Your task to perform on an android device: open app "Facebook Messenger" (install if not already installed) Image 0: 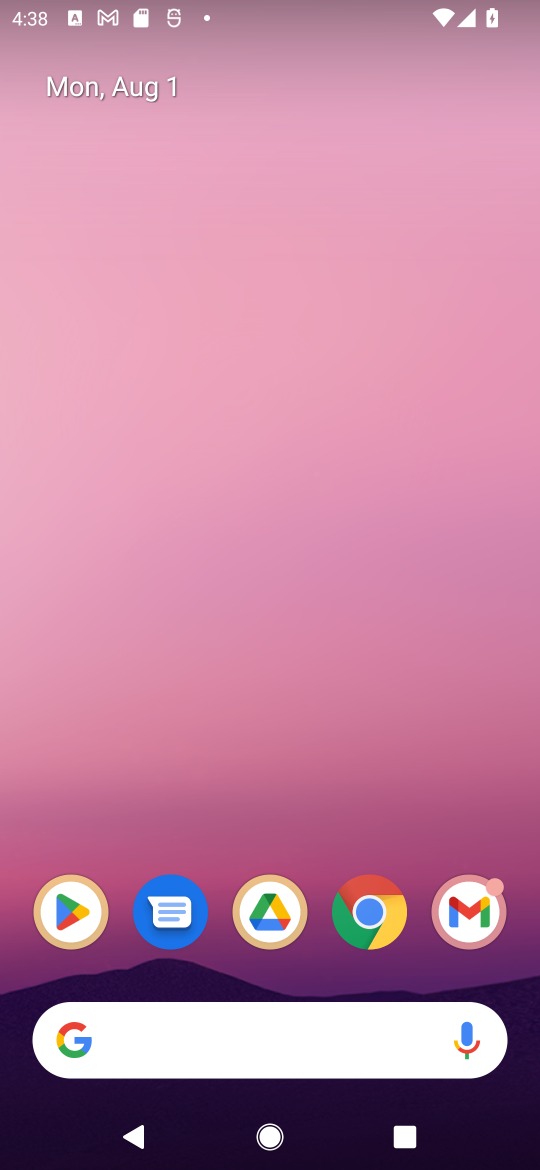
Step 0: click (48, 930)
Your task to perform on an android device: open app "Facebook Messenger" (install if not already installed) Image 1: 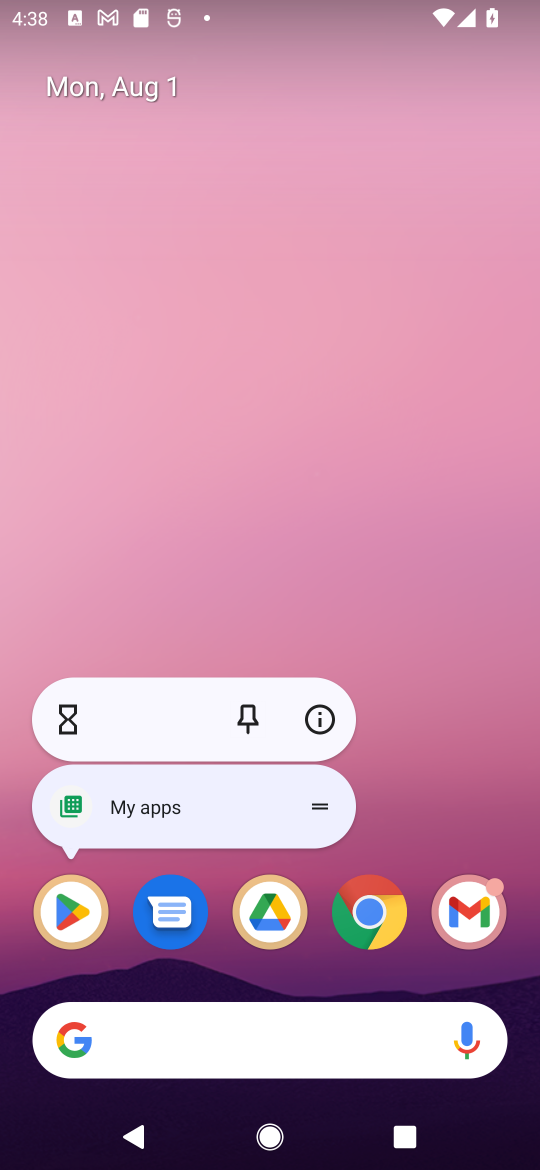
Step 1: click (70, 911)
Your task to perform on an android device: open app "Facebook Messenger" (install if not already installed) Image 2: 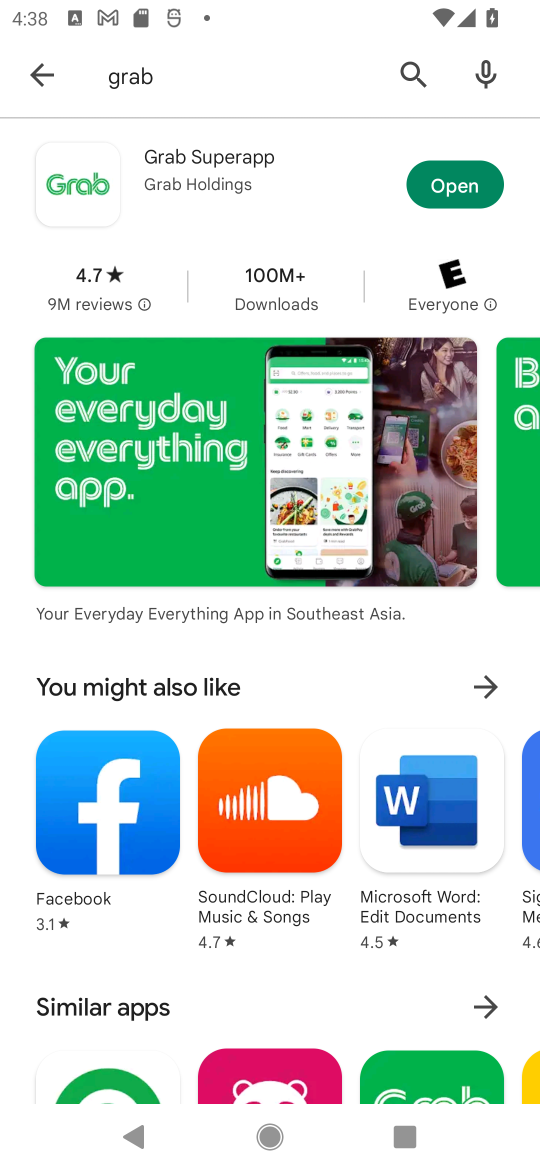
Step 2: click (407, 61)
Your task to perform on an android device: open app "Facebook Messenger" (install if not already installed) Image 3: 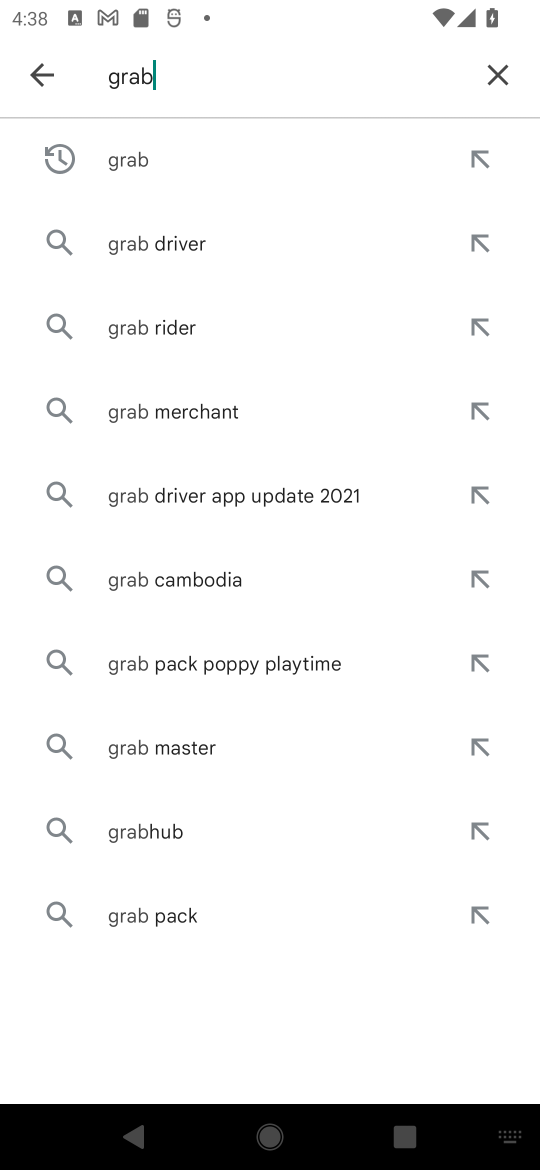
Step 3: click (505, 88)
Your task to perform on an android device: open app "Facebook Messenger" (install if not already installed) Image 4: 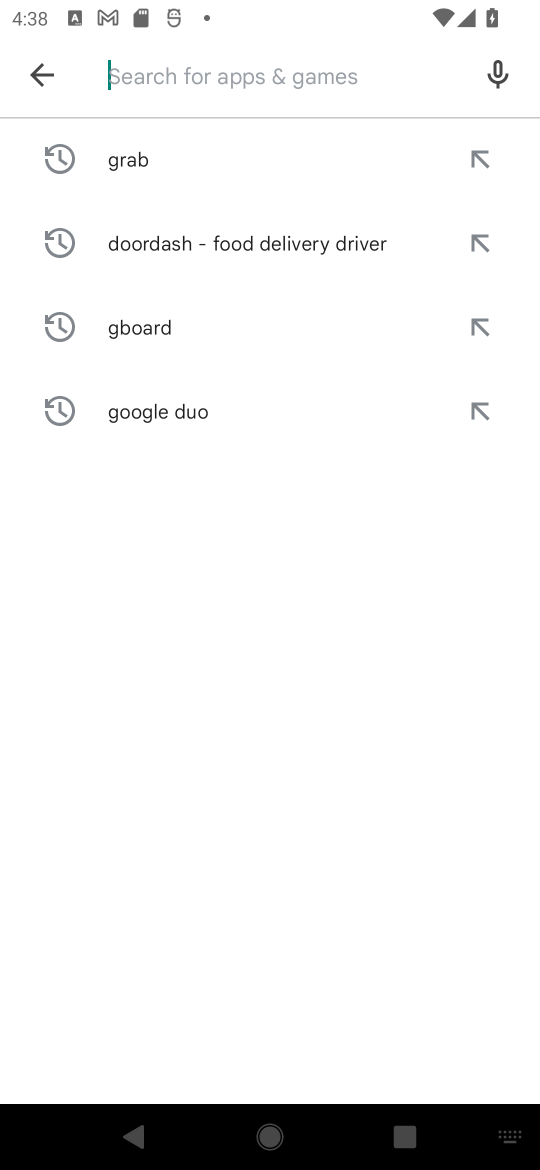
Step 4: type "Facebook Messenger"
Your task to perform on an android device: open app "Facebook Messenger" (install if not already installed) Image 5: 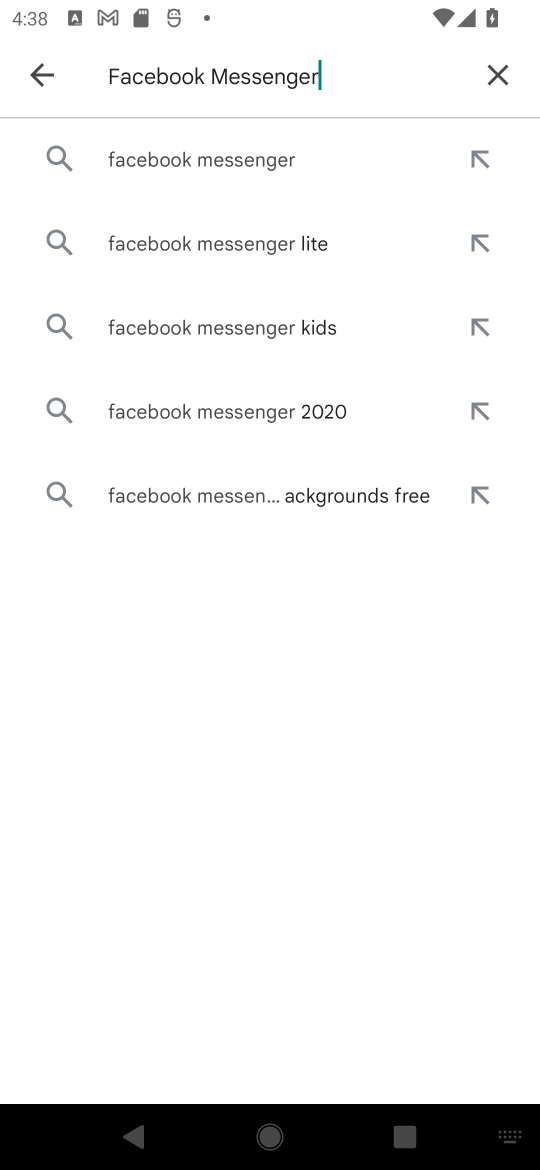
Step 5: click (165, 179)
Your task to perform on an android device: open app "Facebook Messenger" (install if not already installed) Image 6: 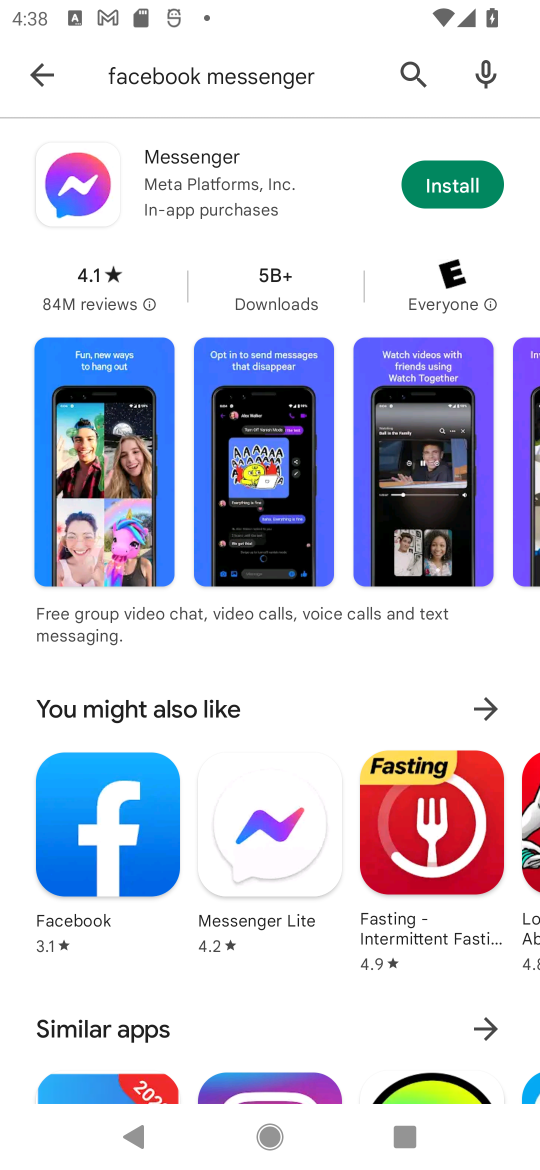
Step 6: click (455, 196)
Your task to perform on an android device: open app "Facebook Messenger" (install if not already installed) Image 7: 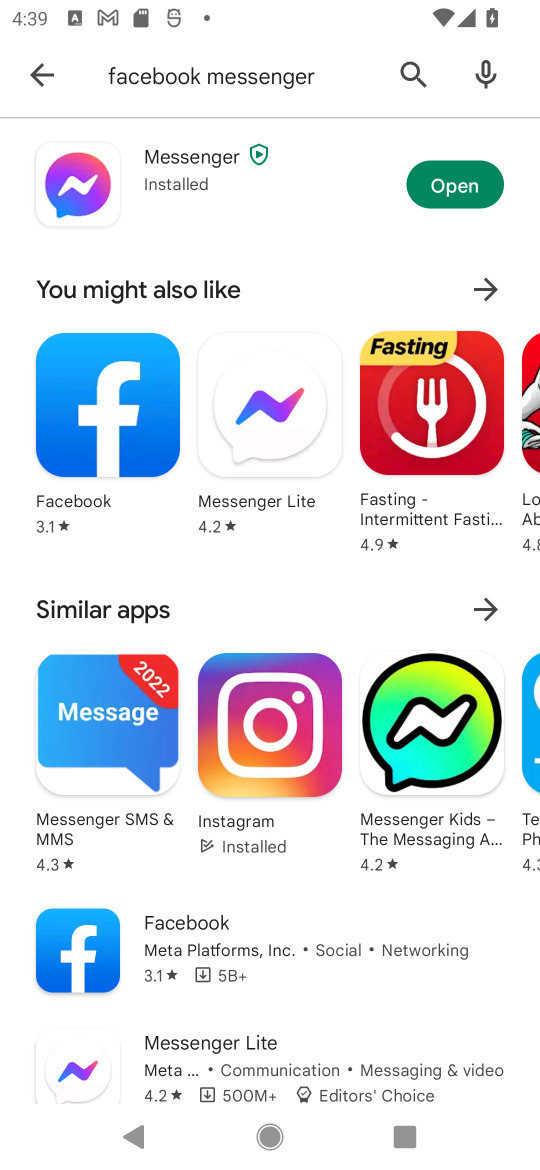
Step 7: click (455, 196)
Your task to perform on an android device: open app "Facebook Messenger" (install if not already installed) Image 8: 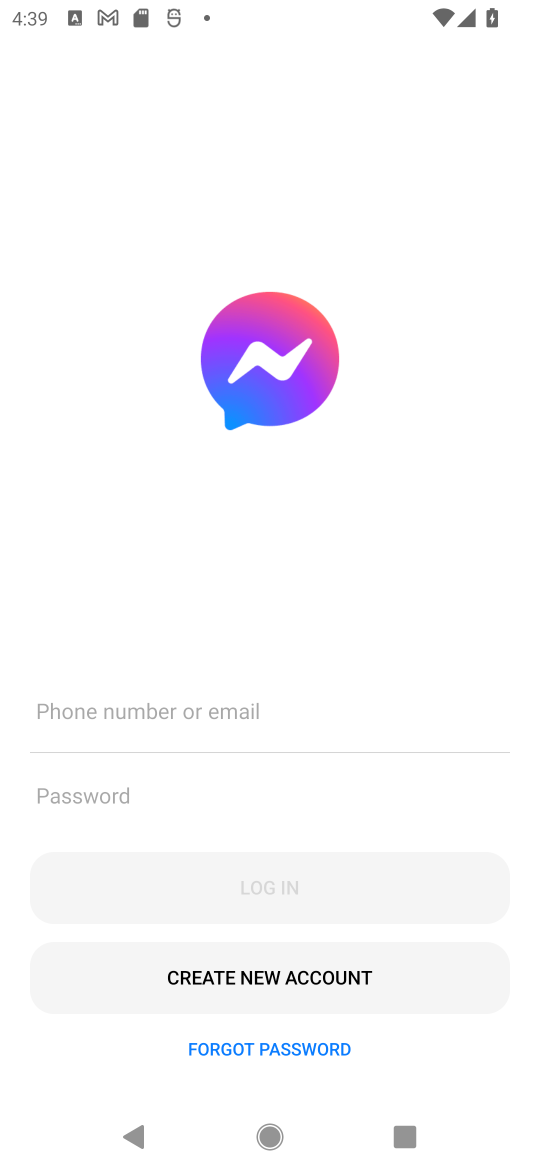
Step 8: task complete